Your task to perform on an android device: set an alarm Image 0: 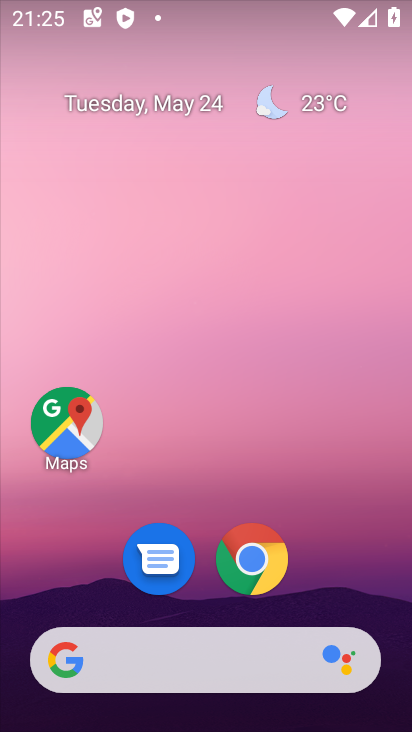
Step 0: drag from (344, 565) to (308, 100)
Your task to perform on an android device: set an alarm Image 1: 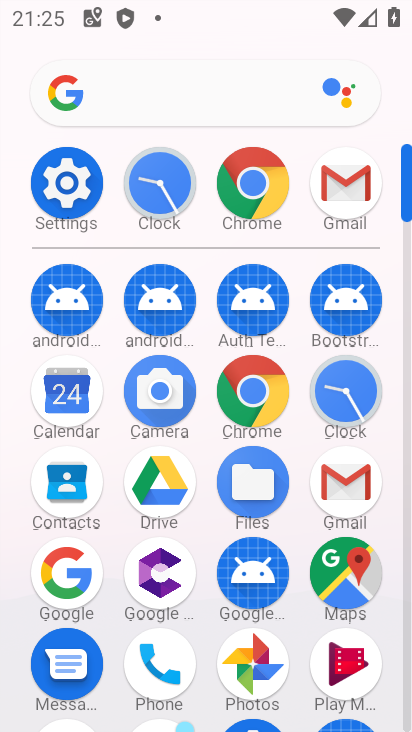
Step 1: click (340, 386)
Your task to perform on an android device: set an alarm Image 2: 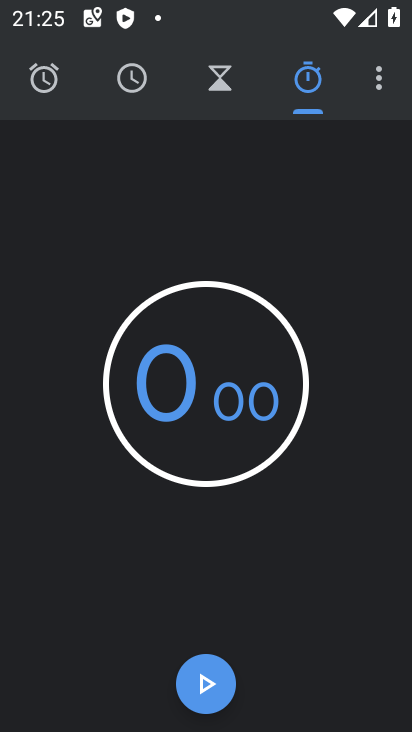
Step 2: click (60, 78)
Your task to perform on an android device: set an alarm Image 3: 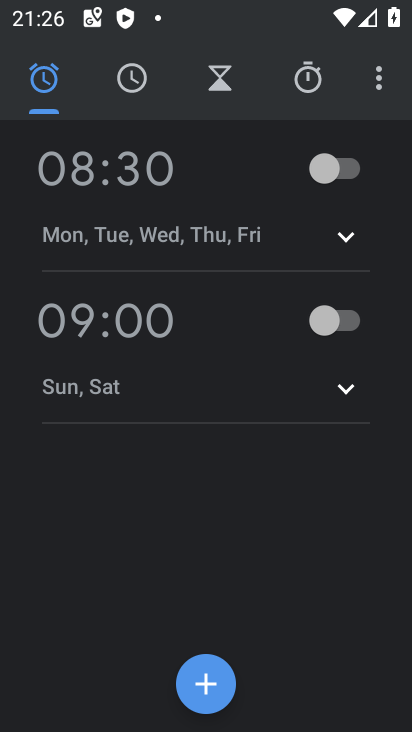
Step 3: click (217, 697)
Your task to perform on an android device: set an alarm Image 4: 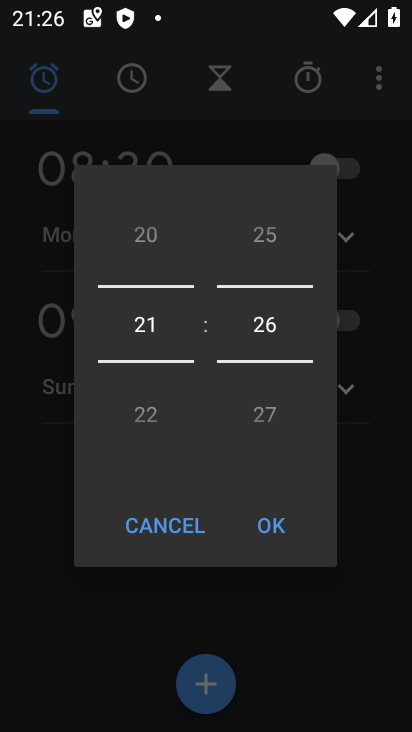
Step 4: click (280, 520)
Your task to perform on an android device: set an alarm Image 5: 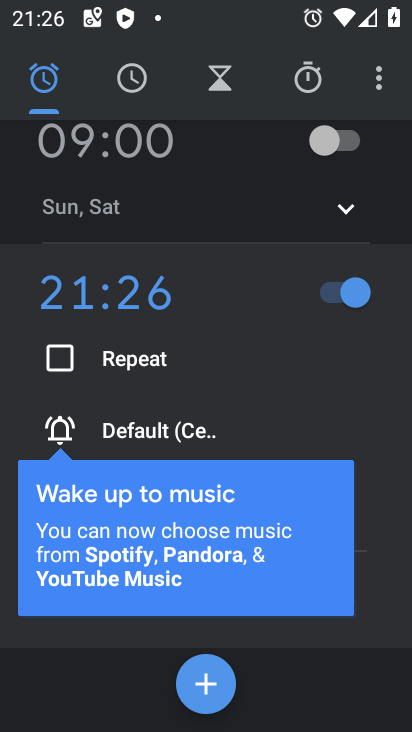
Step 5: task complete